Your task to perform on an android device: delete location history Image 0: 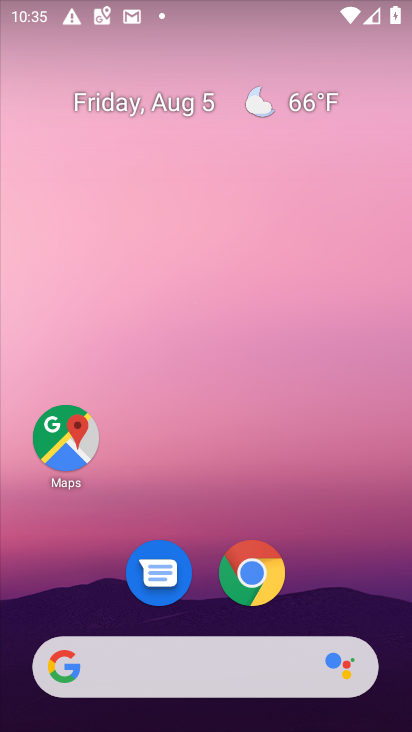
Step 0: press home button
Your task to perform on an android device: delete location history Image 1: 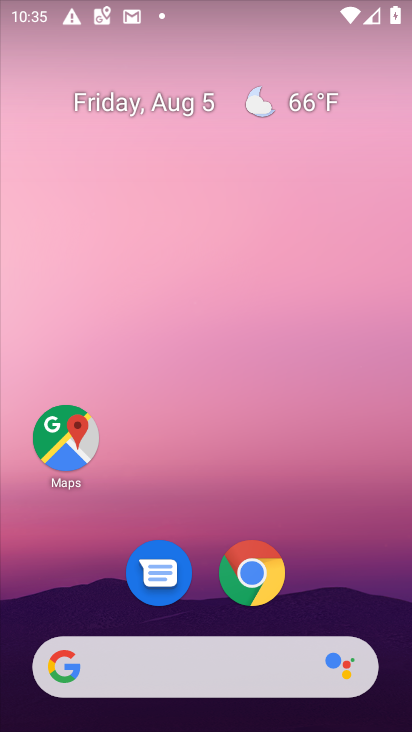
Step 1: drag from (204, 619) to (206, 78)
Your task to perform on an android device: delete location history Image 2: 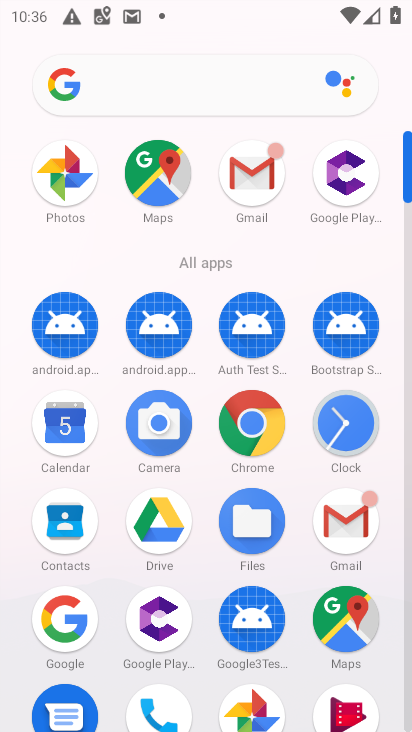
Step 2: drag from (205, 672) to (231, 205)
Your task to perform on an android device: delete location history Image 3: 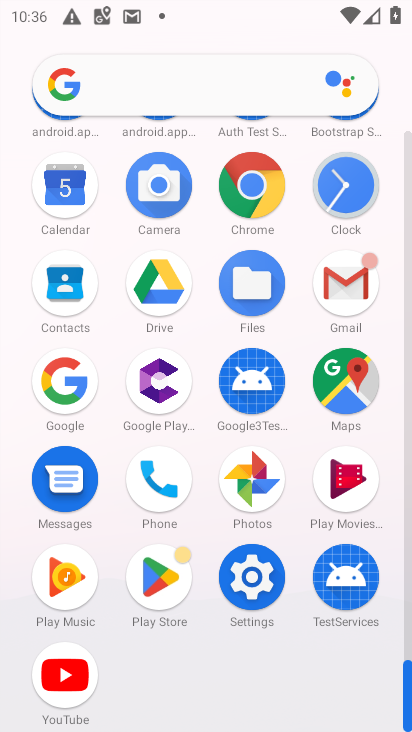
Step 3: click (350, 379)
Your task to perform on an android device: delete location history Image 4: 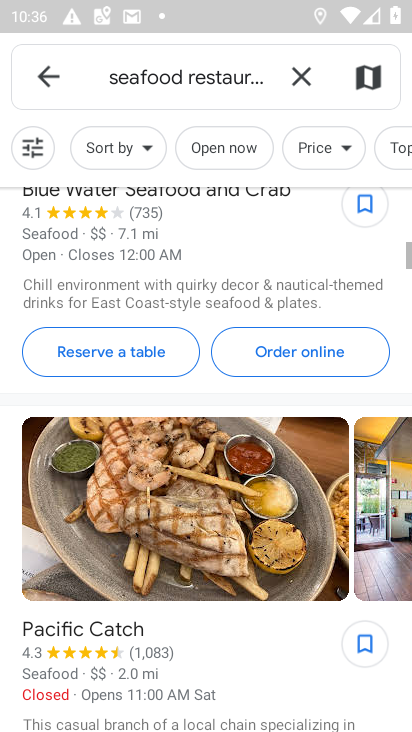
Step 4: click (50, 75)
Your task to perform on an android device: delete location history Image 5: 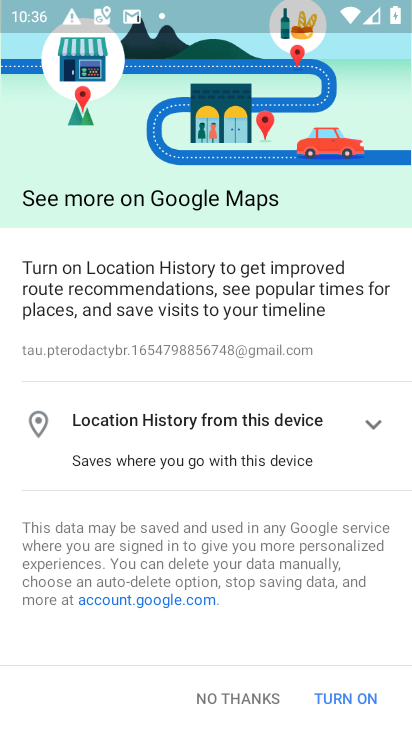
Step 5: click (350, 693)
Your task to perform on an android device: delete location history Image 6: 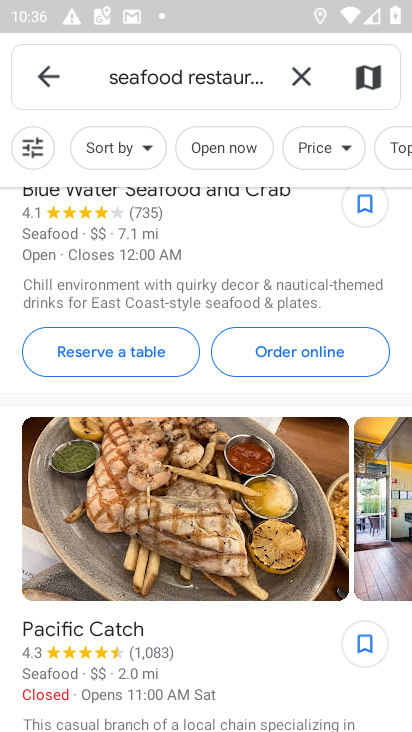
Step 6: click (52, 77)
Your task to perform on an android device: delete location history Image 7: 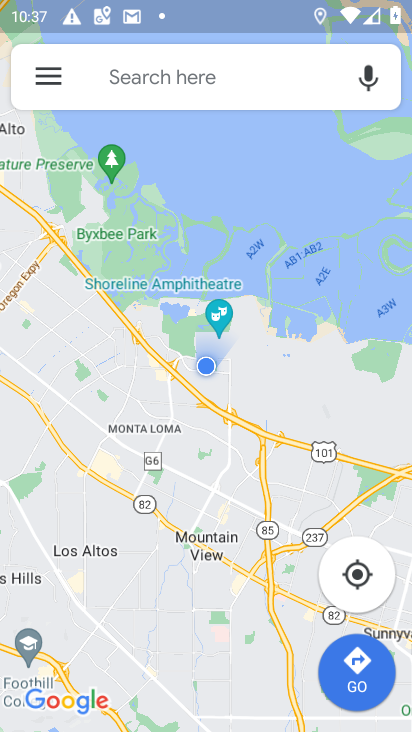
Step 7: click (42, 70)
Your task to perform on an android device: delete location history Image 8: 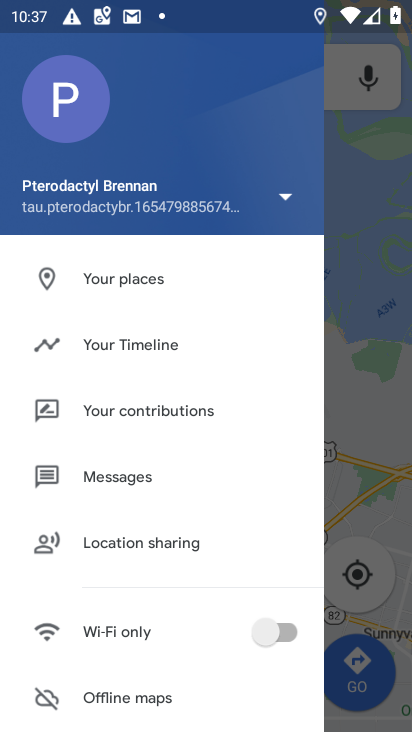
Step 8: click (122, 340)
Your task to perform on an android device: delete location history Image 9: 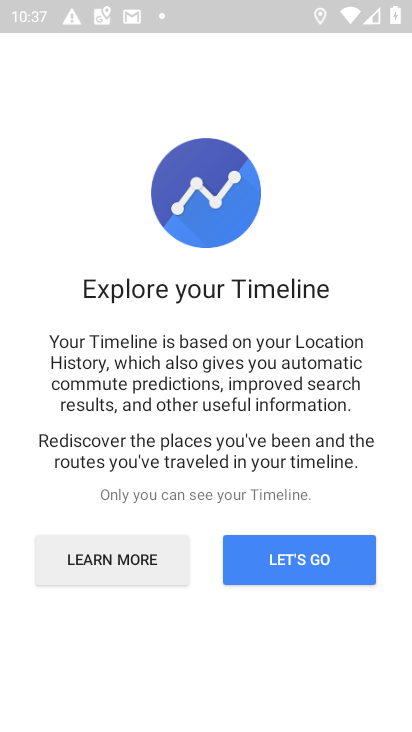
Step 9: click (278, 559)
Your task to perform on an android device: delete location history Image 10: 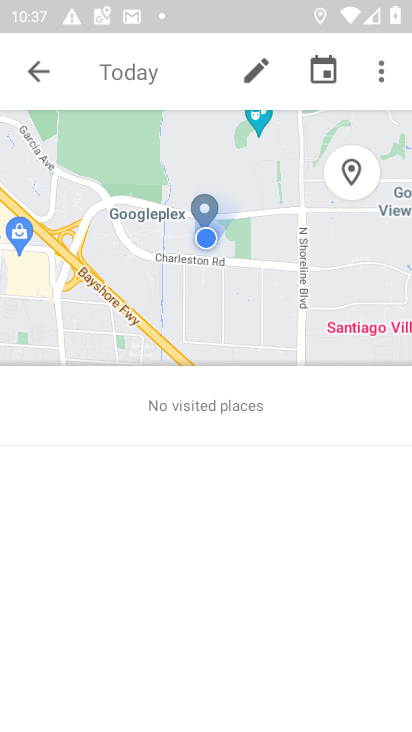
Step 10: click (38, 80)
Your task to perform on an android device: delete location history Image 11: 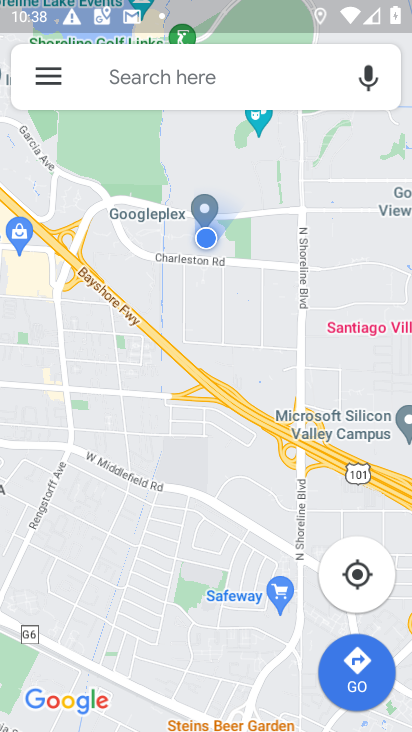
Step 11: click (44, 65)
Your task to perform on an android device: delete location history Image 12: 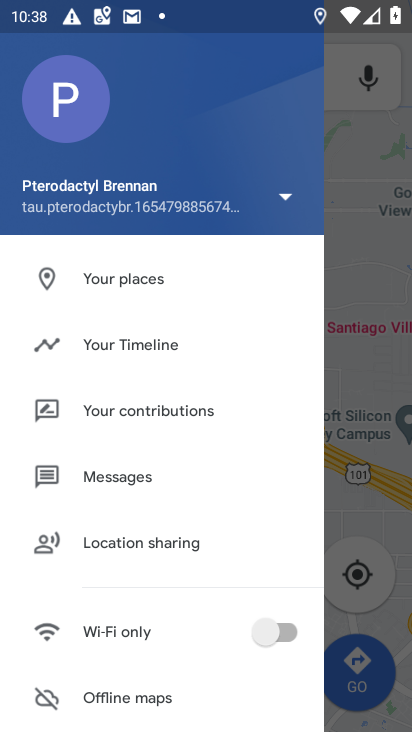
Step 12: click (117, 345)
Your task to perform on an android device: delete location history Image 13: 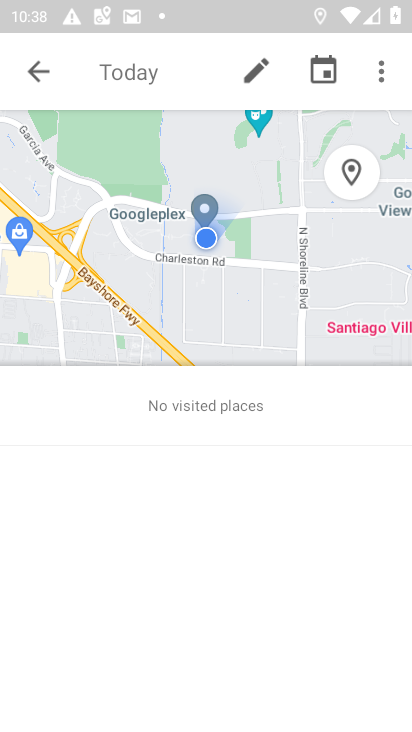
Step 13: click (384, 62)
Your task to perform on an android device: delete location history Image 14: 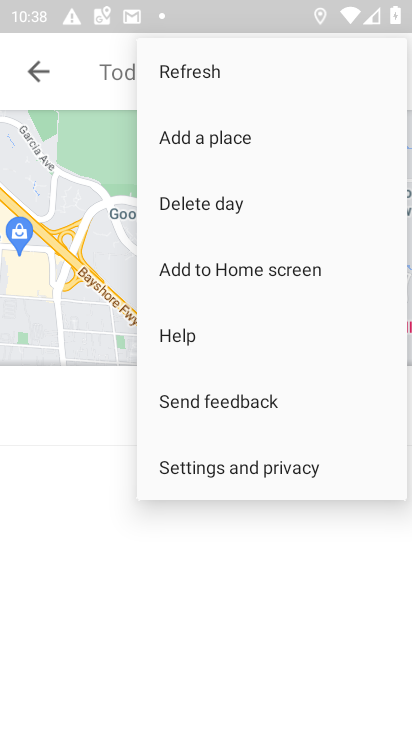
Step 14: click (336, 469)
Your task to perform on an android device: delete location history Image 15: 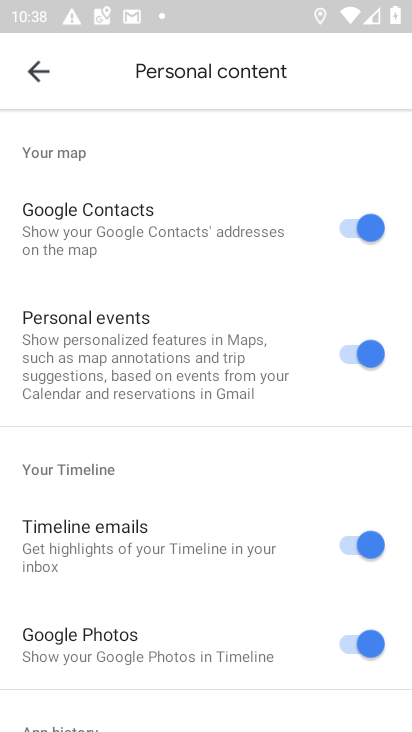
Step 15: click (219, 292)
Your task to perform on an android device: delete location history Image 16: 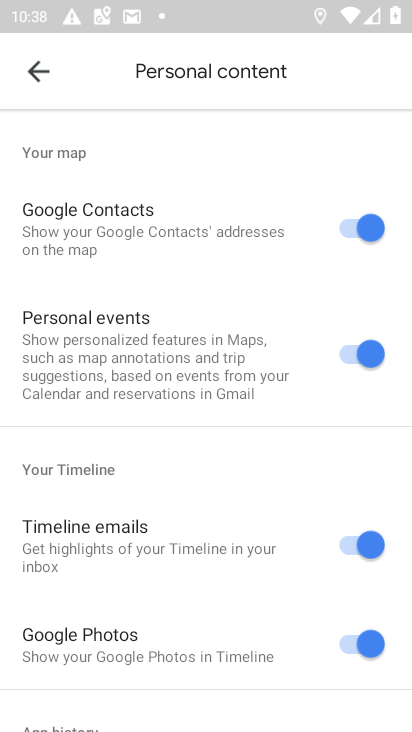
Step 16: drag from (169, 622) to (80, 224)
Your task to perform on an android device: delete location history Image 17: 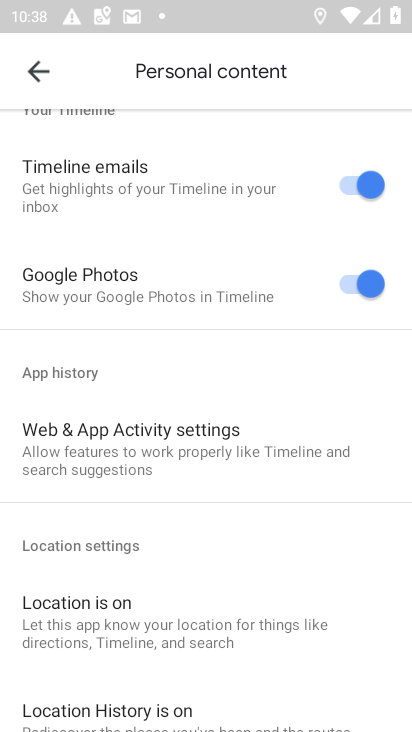
Step 17: drag from (202, 591) to (185, 83)
Your task to perform on an android device: delete location history Image 18: 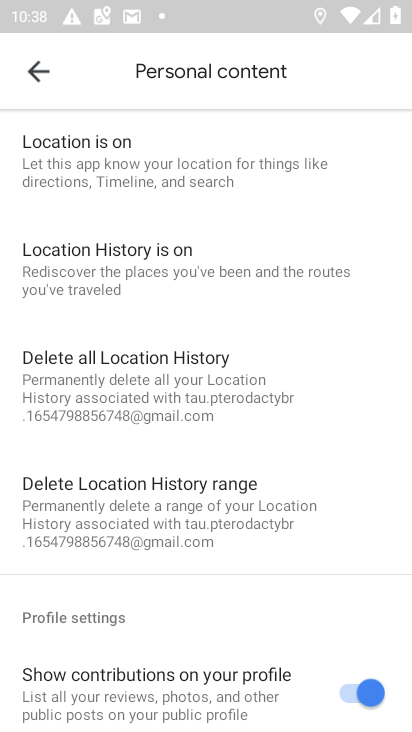
Step 18: click (135, 373)
Your task to perform on an android device: delete location history Image 19: 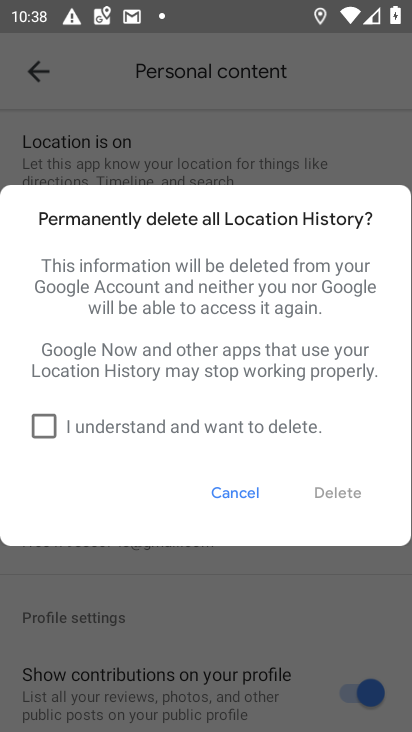
Step 19: click (38, 427)
Your task to perform on an android device: delete location history Image 20: 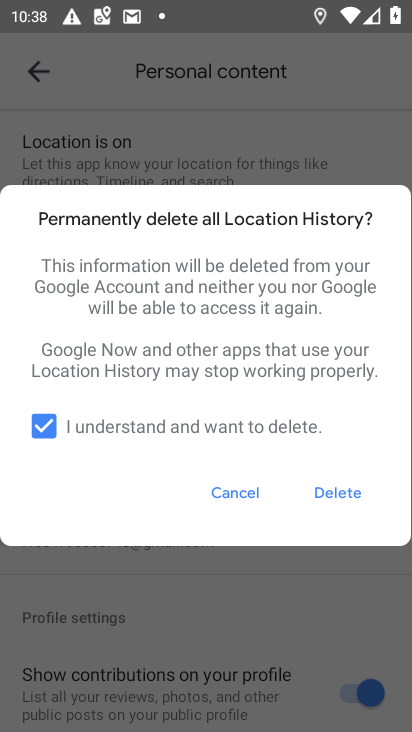
Step 20: click (329, 487)
Your task to perform on an android device: delete location history Image 21: 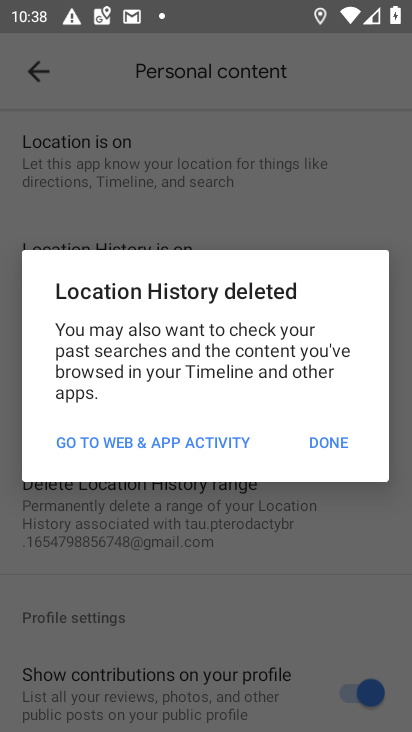
Step 21: click (322, 452)
Your task to perform on an android device: delete location history Image 22: 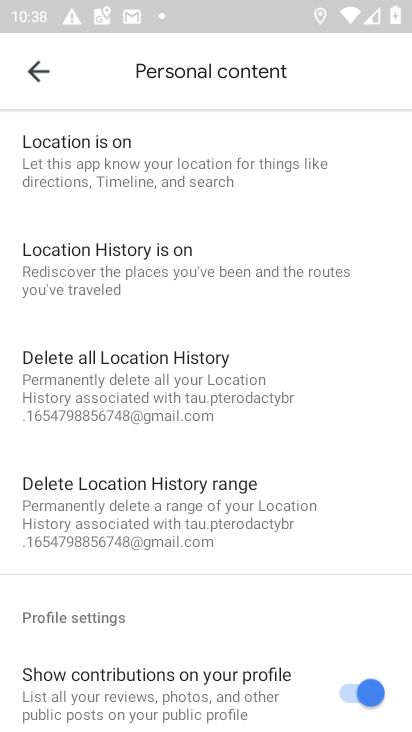
Step 22: task complete